Your task to perform on an android device: Is it going to rain this weekend? Image 0: 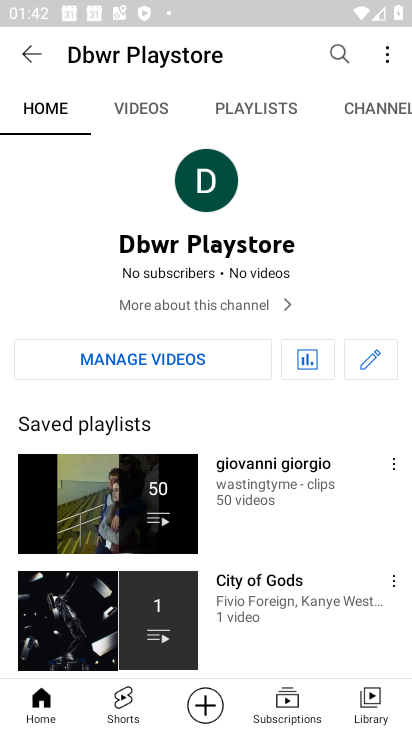
Step 0: press home button
Your task to perform on an android device: Is it going to rain this weekend? Image 1: 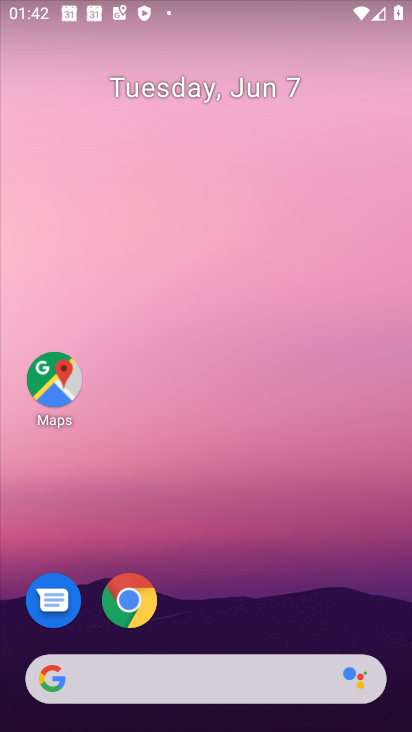
Step 1: drag from (215, 693) to (207, 236)
Your task to perform on an android device: Is it going to rain this weekend? Image 2: 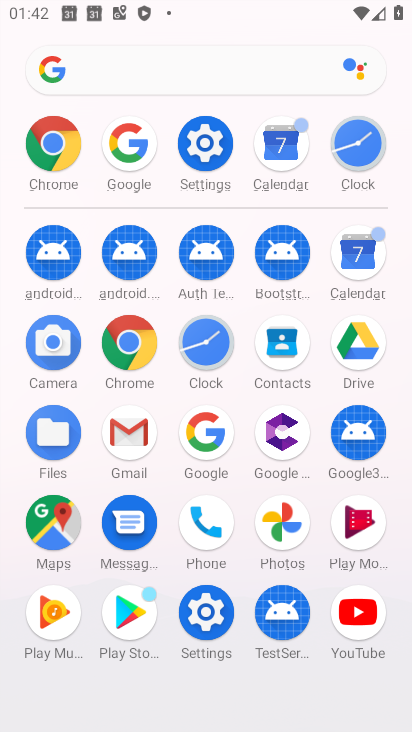
Step 2: click (361, 262)
Your task to perform on an android device: Is it going to rain this weekend? Image 3: 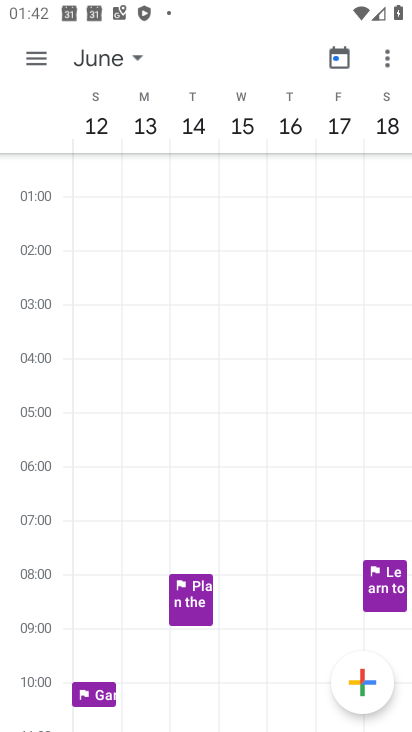
Step 3: click (136, 56)
Your task to perform on an android device: Is it going to rain this weekend? Image 4: 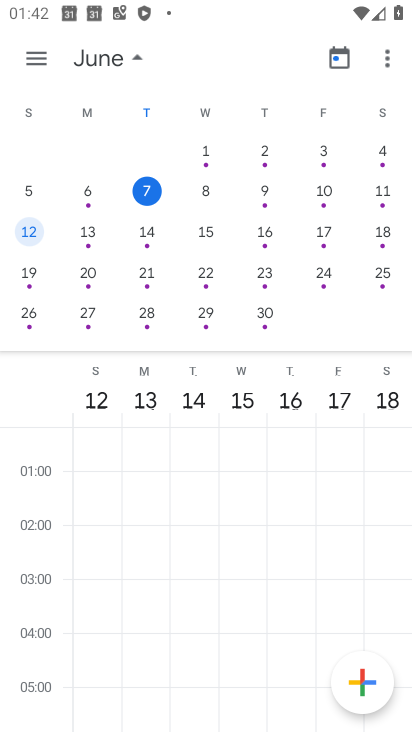
Step 4: click (383, 187)
Your task to perform on an android device: Is it going to rain this weekend? Image 5: 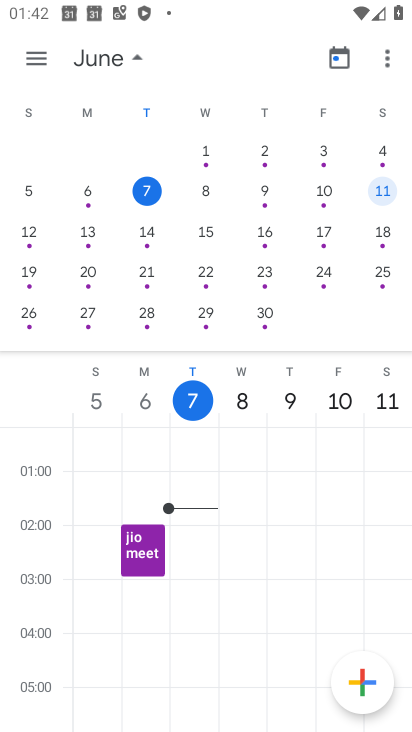
Step 5: click (383, 187)
Your task to perform on an android device: Is it going to rain this weekend? Image 6: 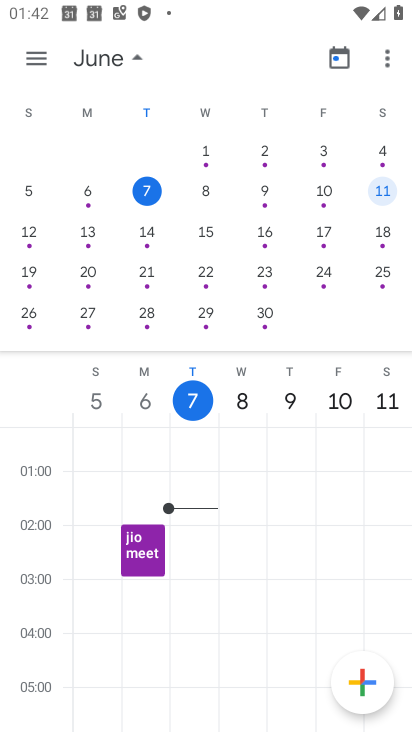
Step 6: click (200, 402)
Your task to perform on an android device: Is it going to rain this weekend? Image 7: 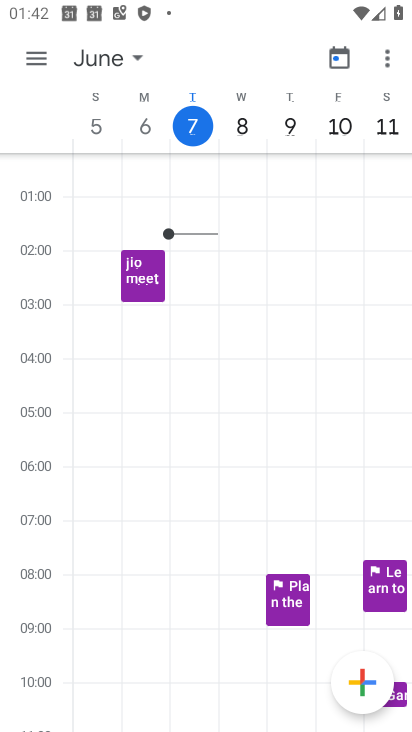
Step 7: click (197, 120)
Your task to perform on an android device: Is it going to rain this weekend? Image 8: 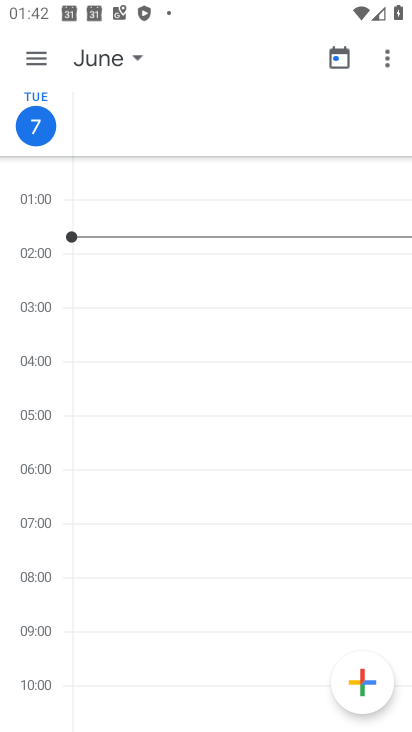
Step 8: task complete